Your task to perform on an android device: open app "Adobe Express: Graphic Design" Image 0: 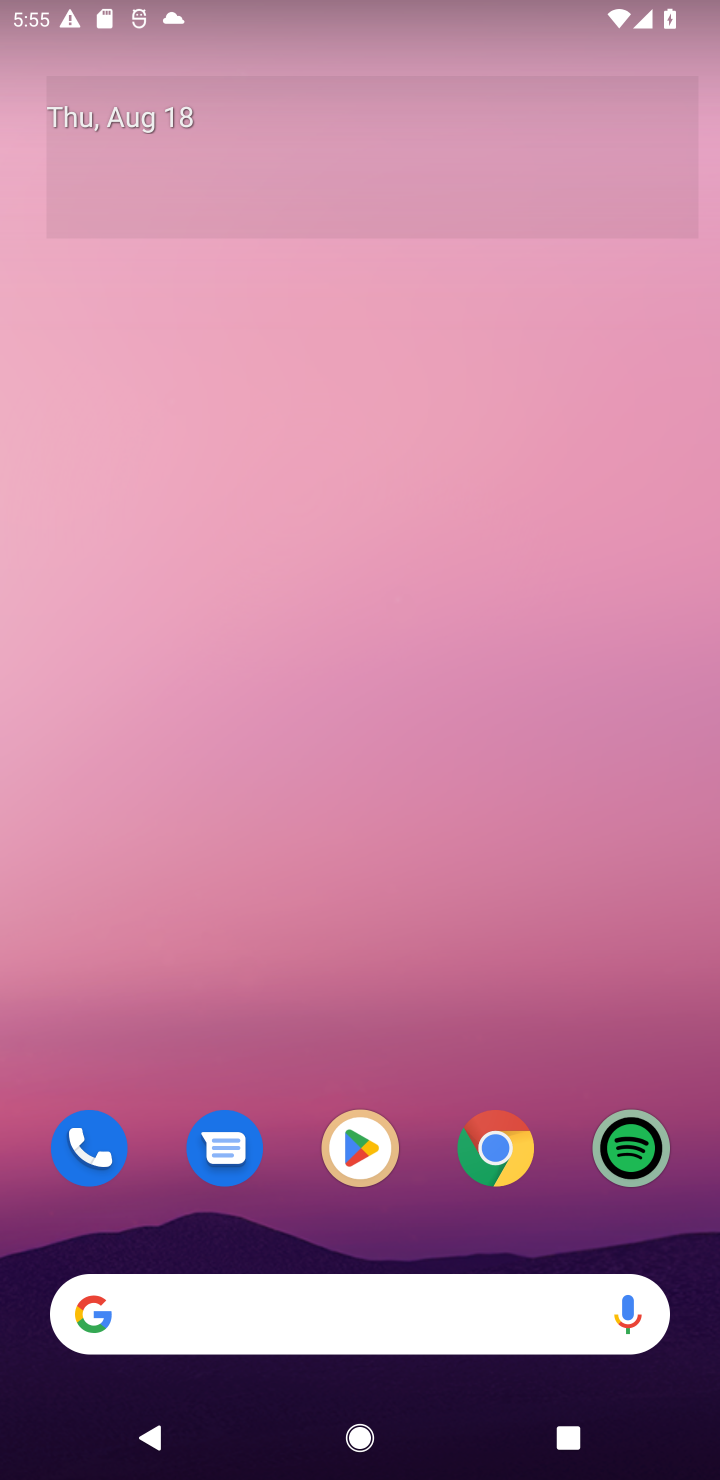
Step 0: drag from (347, 1057) to (385, 115)
Your task to perform on an android device: open app "Adobe Express: Graphic Design" Image 1: 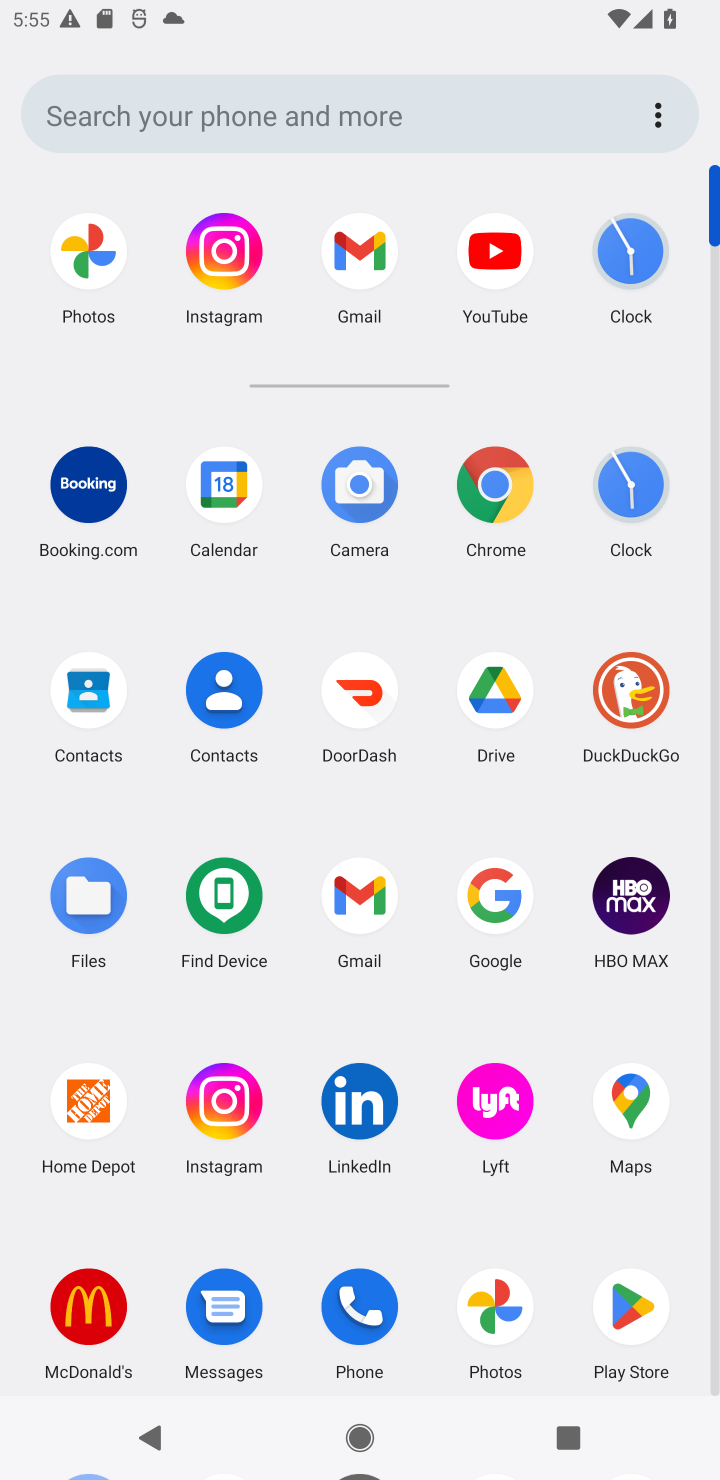
Step 1: drag from (656, 1262) to (651, 885)
Your task to perform on an android device: open app "Adobe Express: Graphic Design" Image 2: 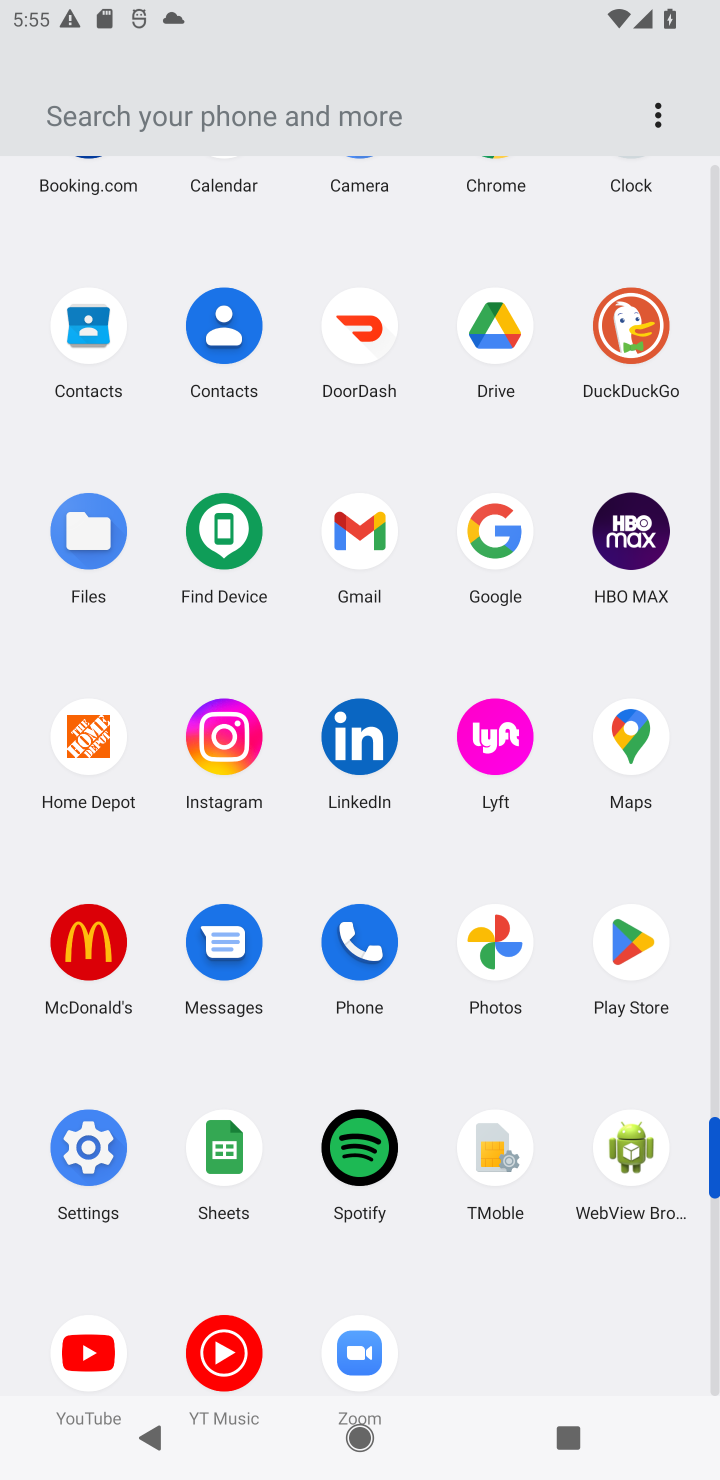
Step 2: click (650, 1033)
Your task to perform on an android device: open app "Adobe Express: Graphic Design" Image 3: 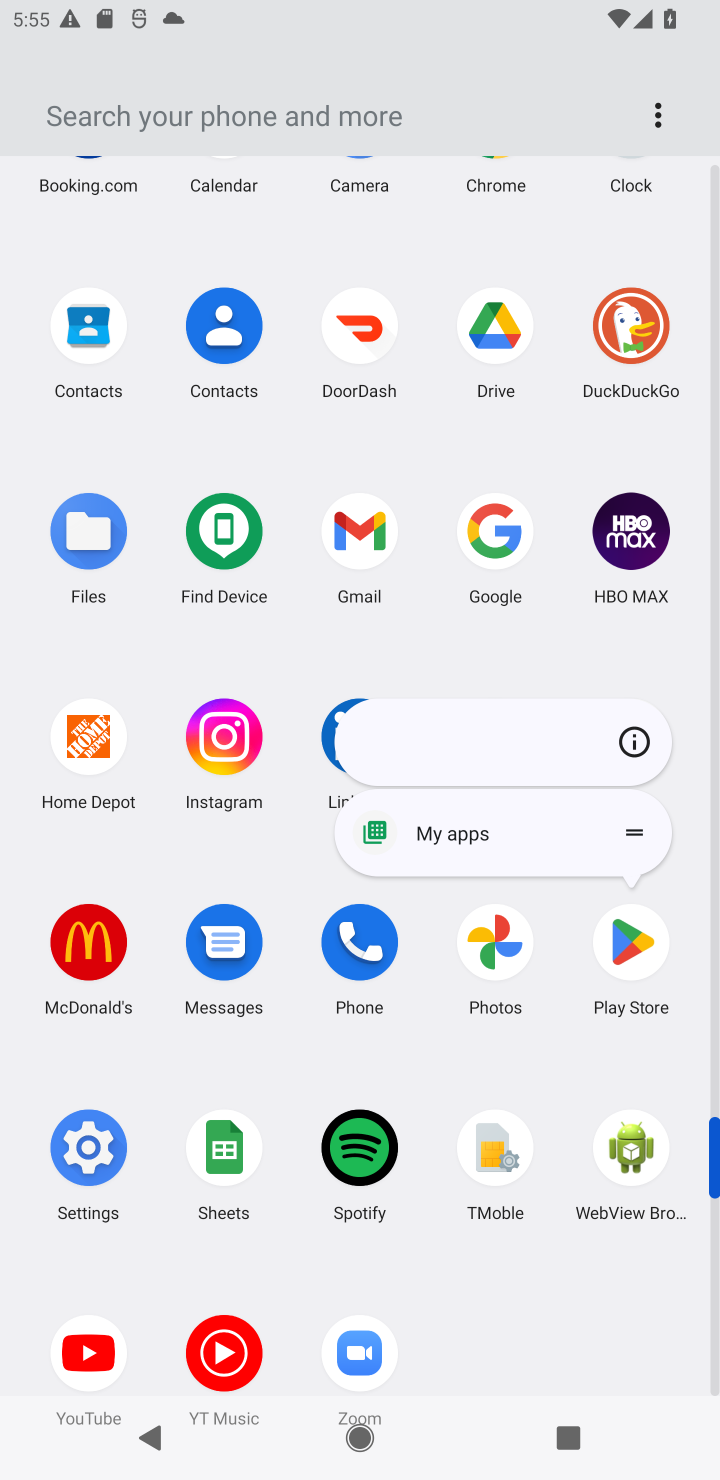
Step 3: click (623, 929)
Your task to perform on an android device: open app "Adobe Express: Graphic Design" Image 4: 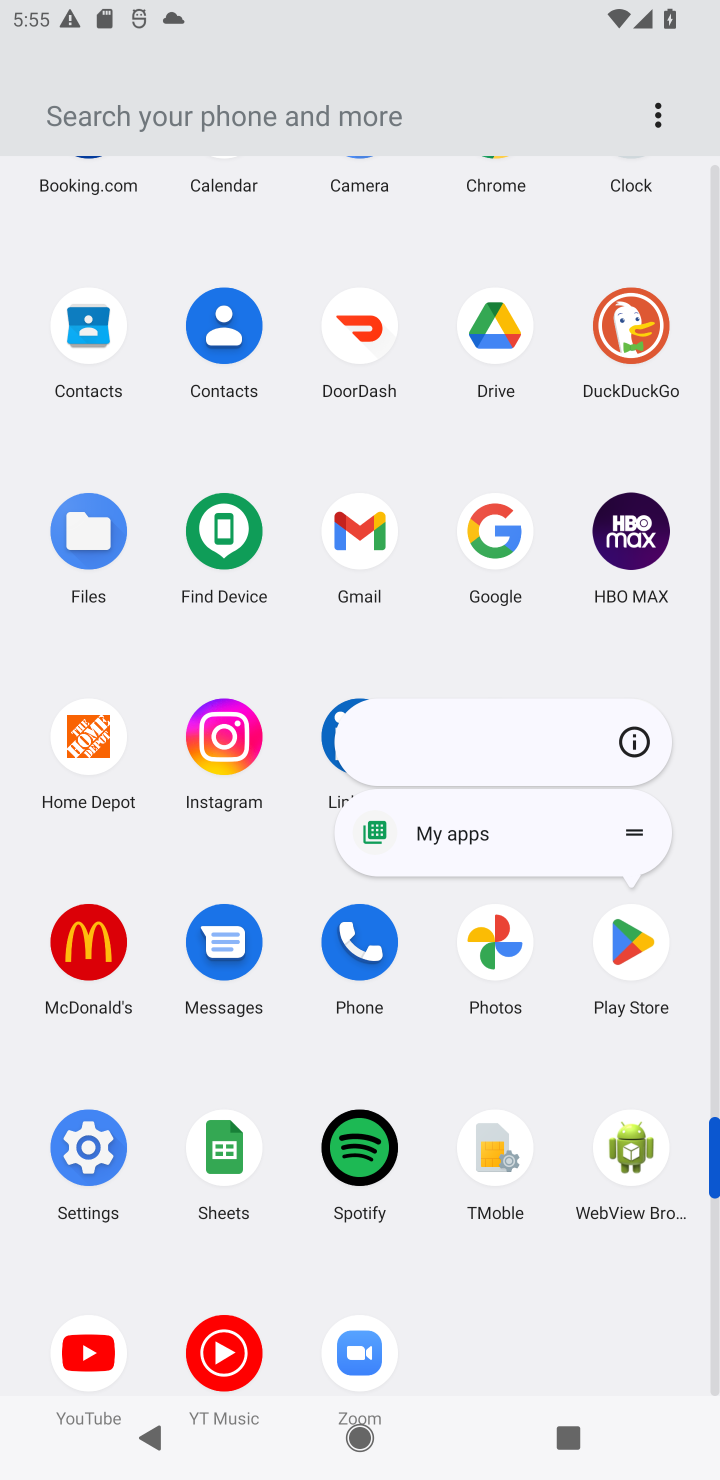
Step 4: click (618, 917)
Your task to perform on an android device: open app "Adobe Express: Graphic Design" Image 5: 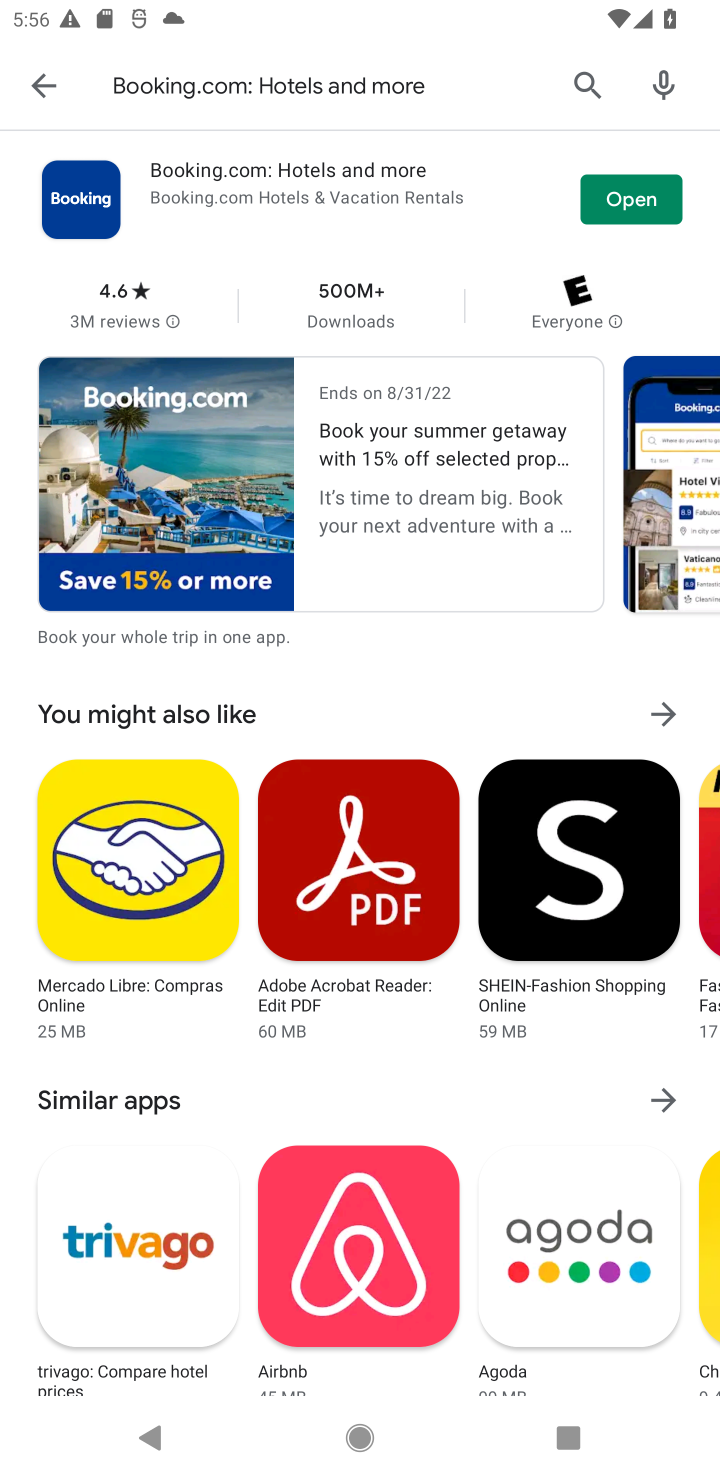
Step 5: press back button
Your task to perform on an android device: open app "Adobe Express: Graphic Design" Image 6: 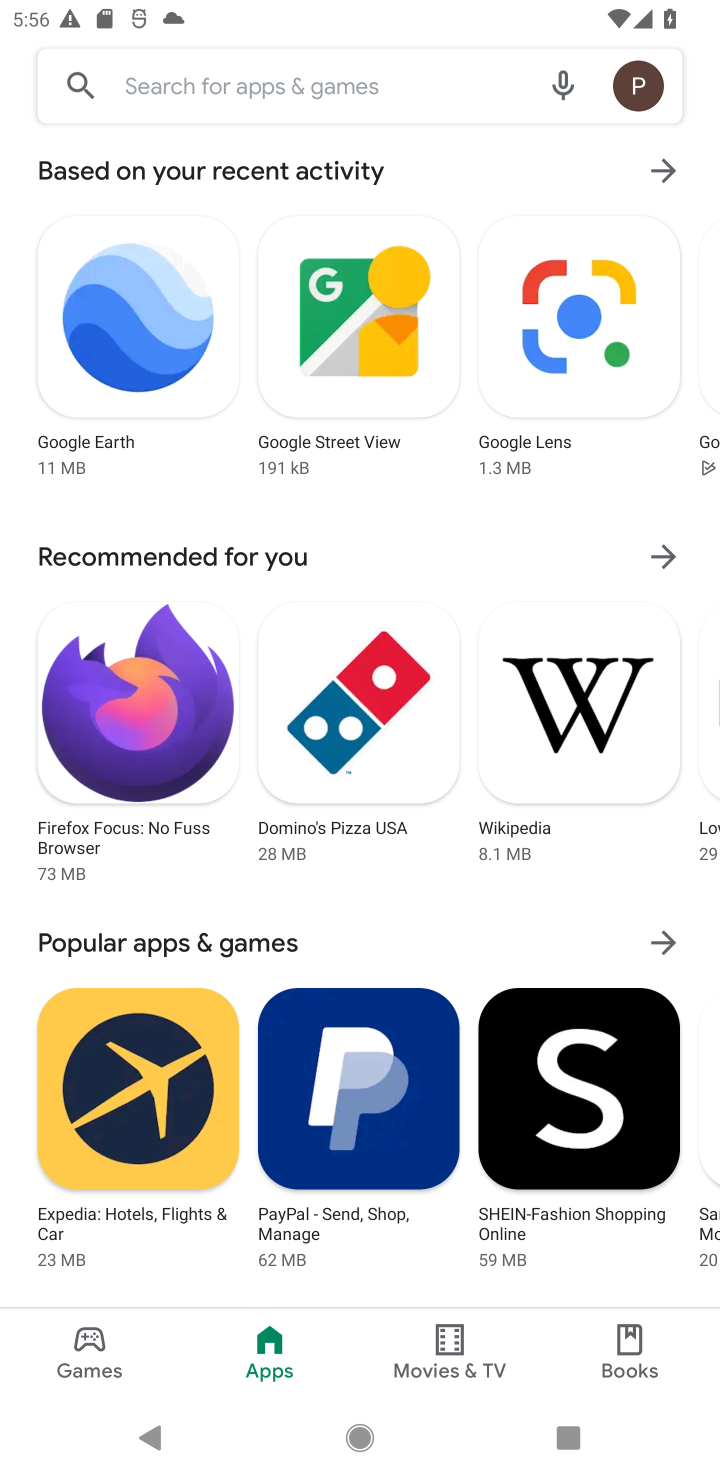
Step 6: click (203, 78)
Your task to perform on an android device: open app "Adobe Express: Graphic Design" Image 7: 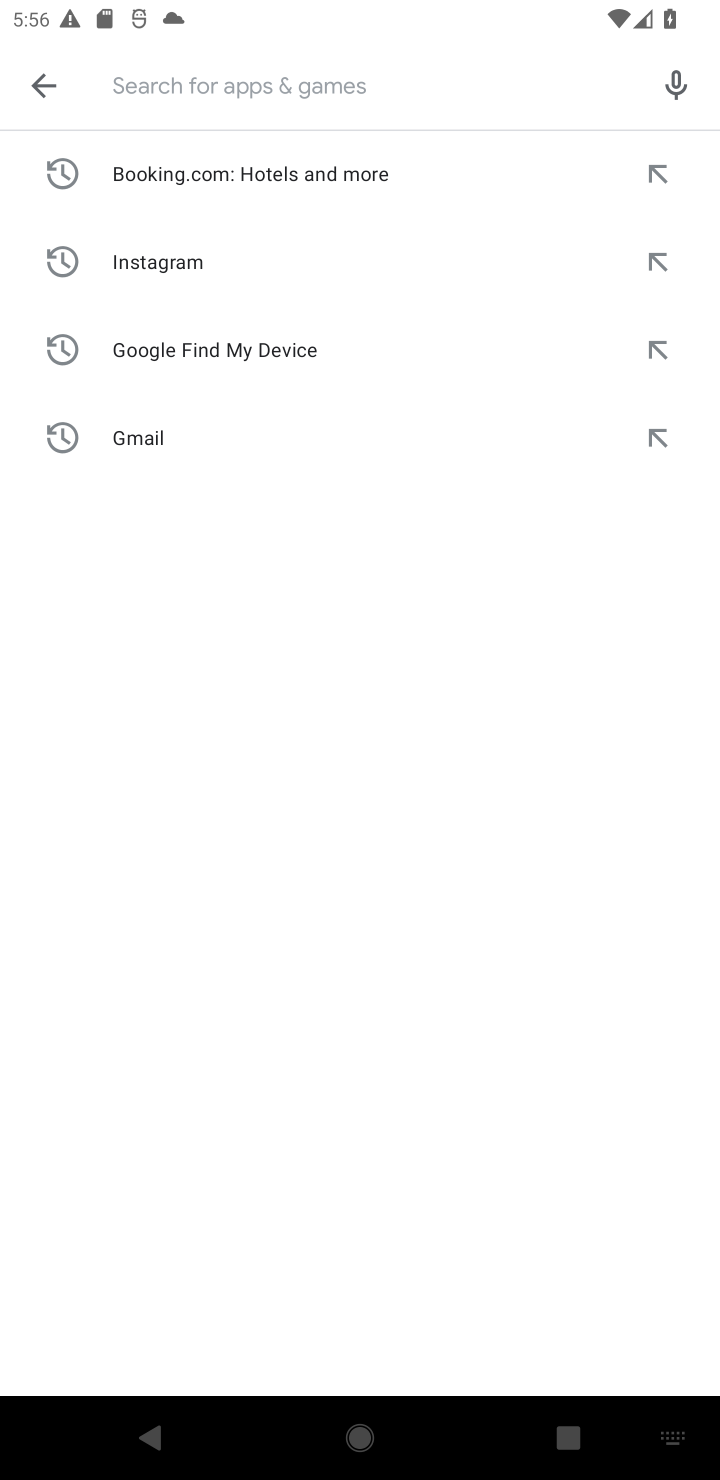
Step 7: type "Adobe Express: Graphic Design"
Your task to perform on an android device: open app "Adobe Express: Graphic Design" Image 8: 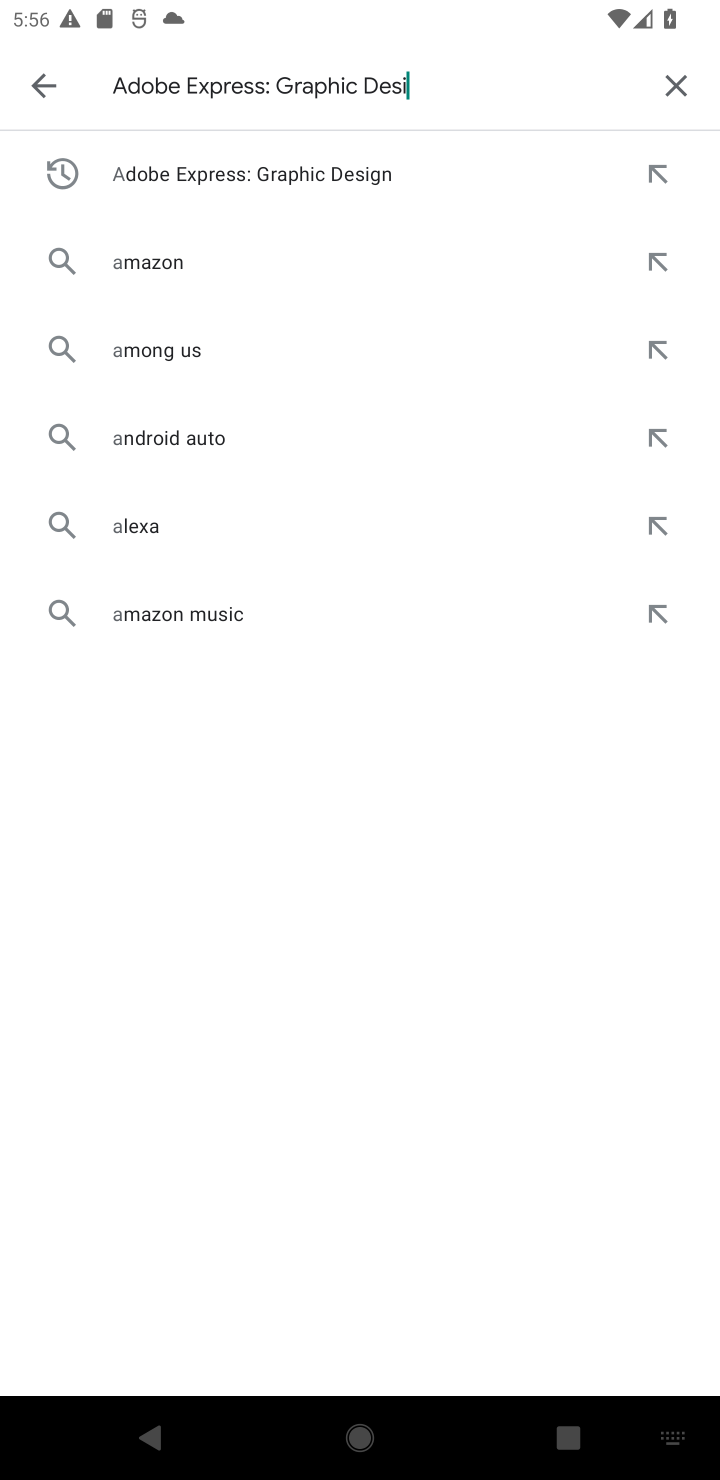
Step 8: press enter
Your task to perform on an android device: open app "Adobe Express: Graphic Design" Image 9: 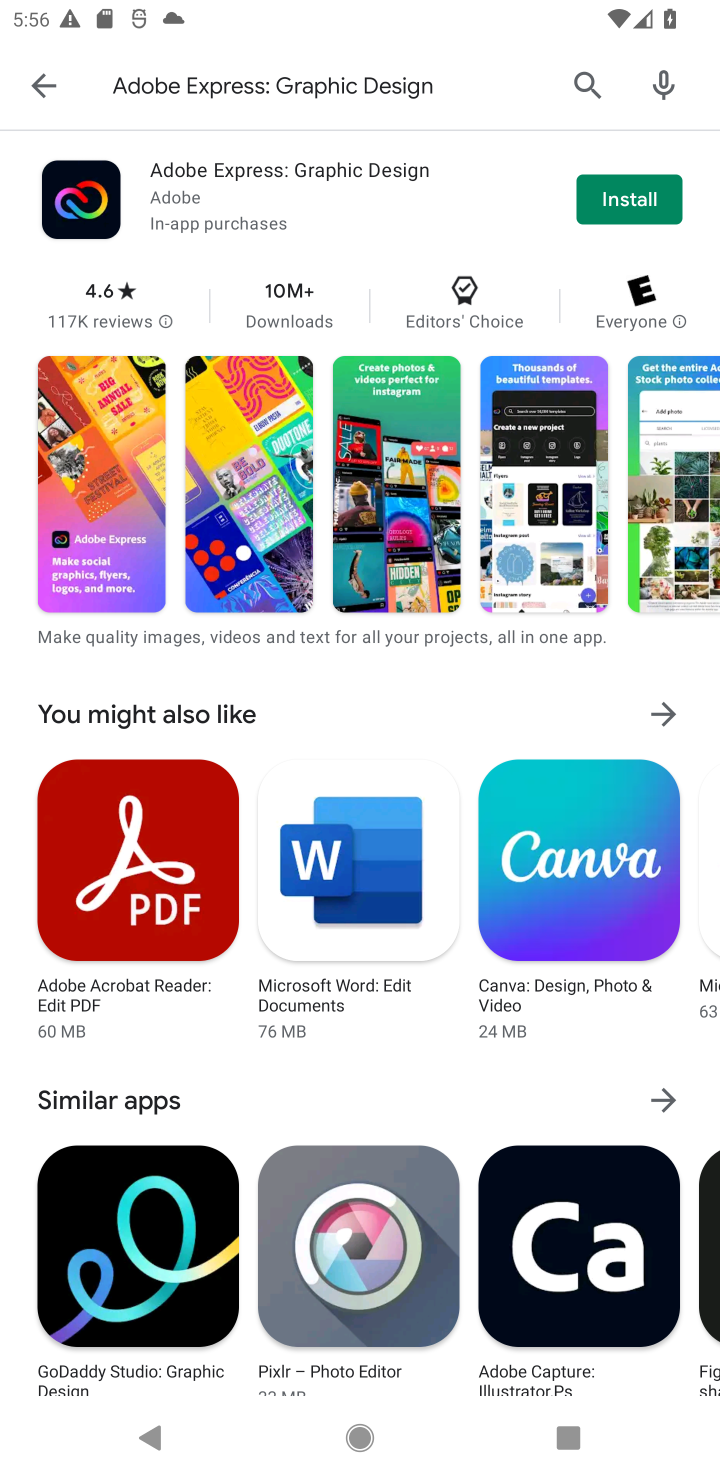
Step 9: task complete